Your task to perform on an android device: toggle location history Image 0: 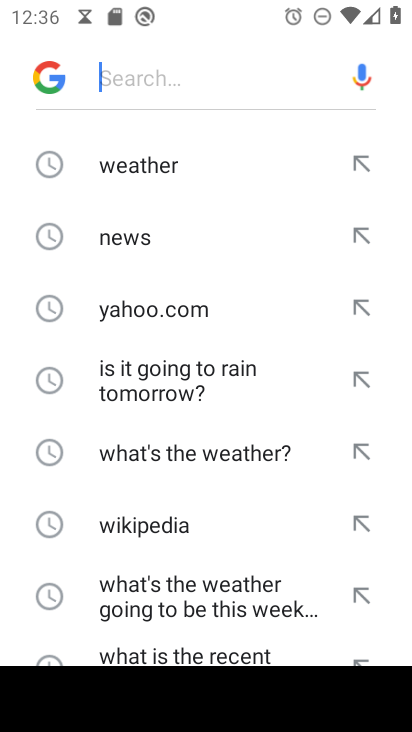
Step 0: press home button
Your task to perform on an android device: toggle location history Image 1: 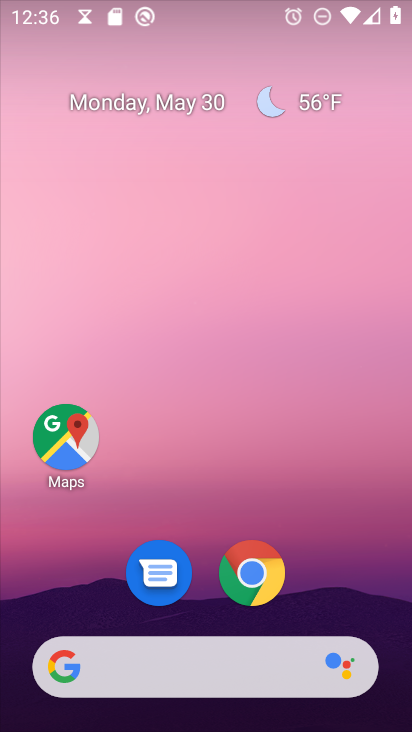
Step 1: drag from (219, 485) to (211, 144)
Your task to perform on an android device: toggle location history Image 2: 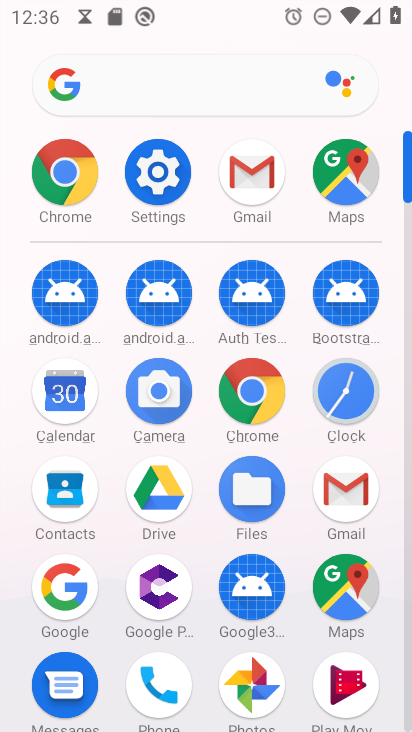
Step 2: click (182, 159)
Your task to perform on an android device: toggle location history Image 3: 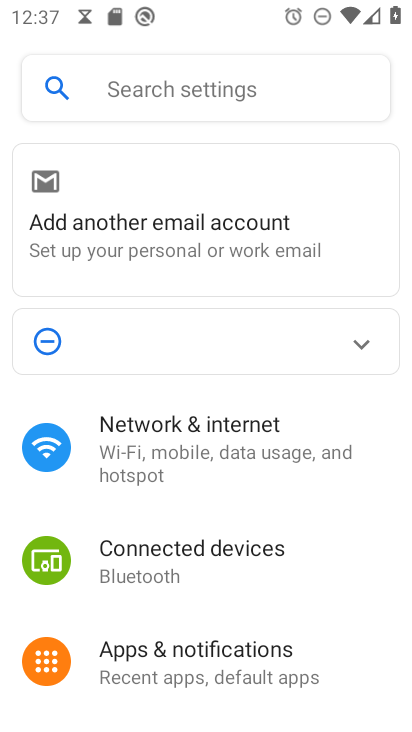
Step 3: drag from (229, 716) to (295, 182)
Your task to perform on an android device: toggle location history Image 4: 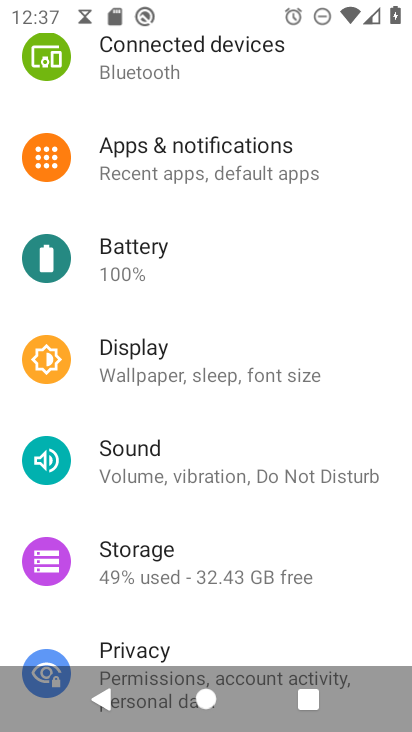
Step 4: drag from (241, 626) to (306, 113)
Your task to perform on an android device: toggle location history Image 5: 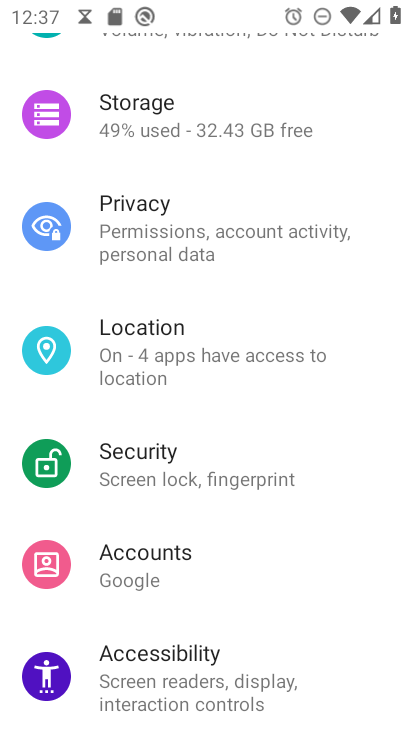
Step 5: click (248, 358)
Your task to perform on an android device: toggle location history Image 6: 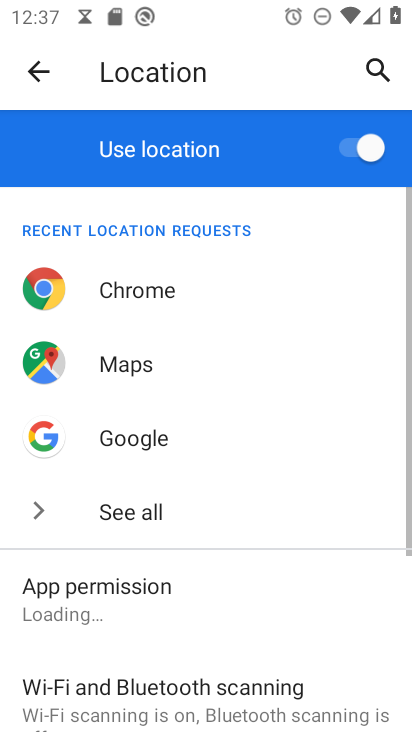
Step 6: drag from (191, 640) to (302, 84)
Your task to perform on an android device: toggle location history Image 7: 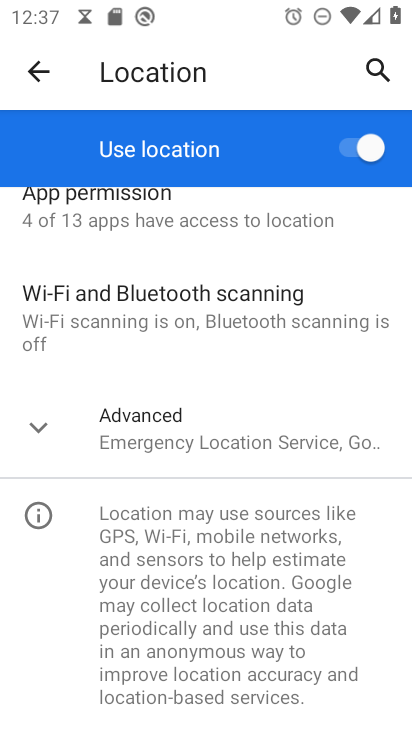
Step 7: click (288, 441)
Your task to perform on an android device: toggle location history Image 8: 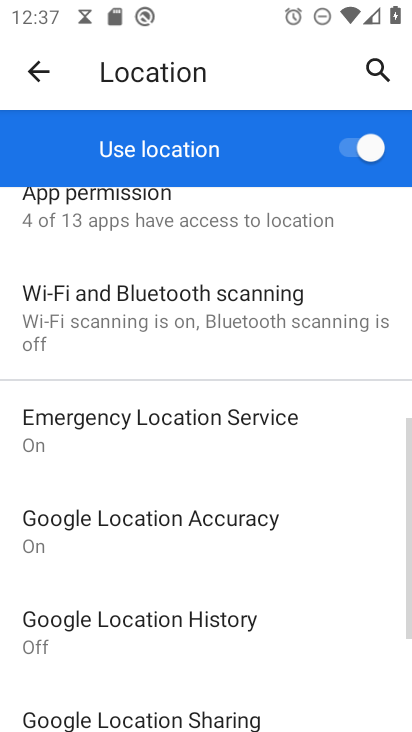
Step 8: click (226, 642)
Your task to perform on an android device: toggle location history Image 9: 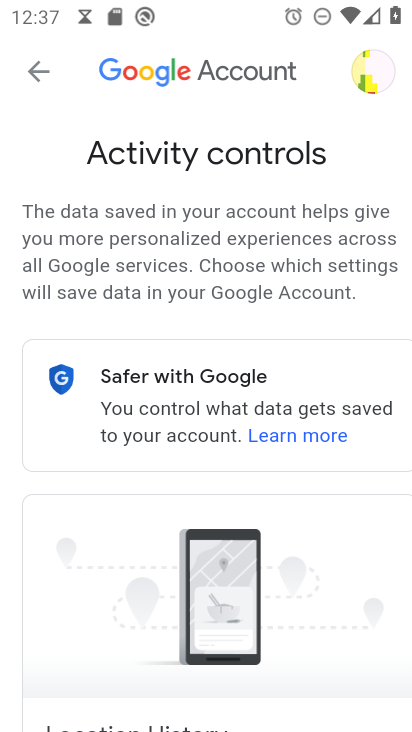
Step 9: drag from (326, 483) to (305, 122)
Your task to perform on an android device: toggle location history Image 10: 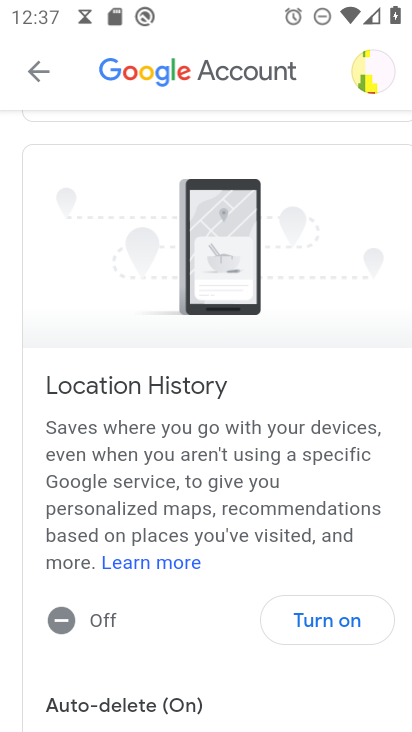
Step 10: click (332, 620)
Your task to perform on an android device: toggle location history Image 11: 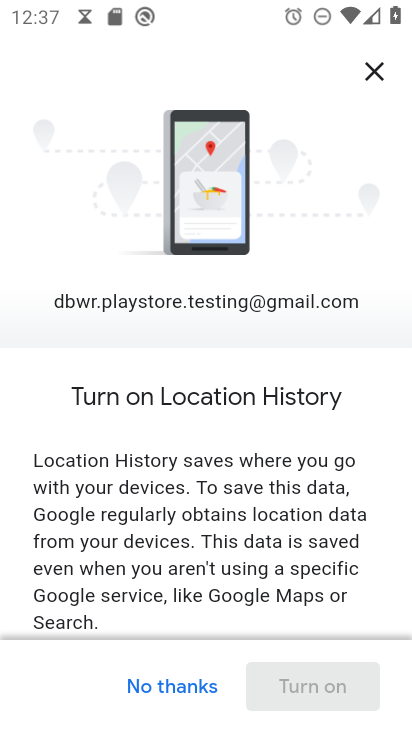
Step 11: drag from (252, 574) to (226, 92)
Your task to perform on an android device: toggle location history Image 12: 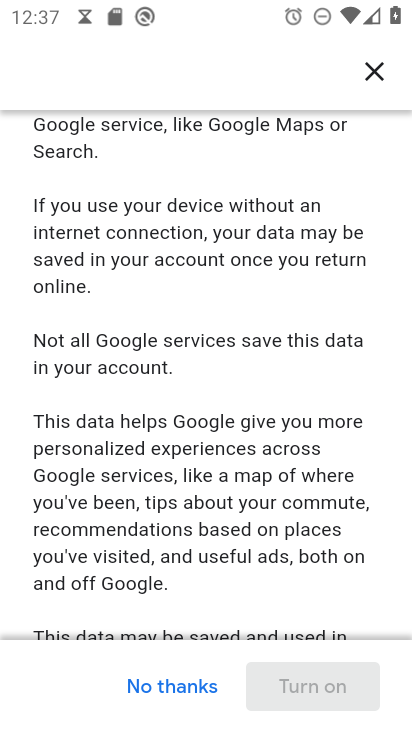
Step 12: drag from (262, 561) to (257, 157)
Your task to perform on an android device: toggle location history Image 13: 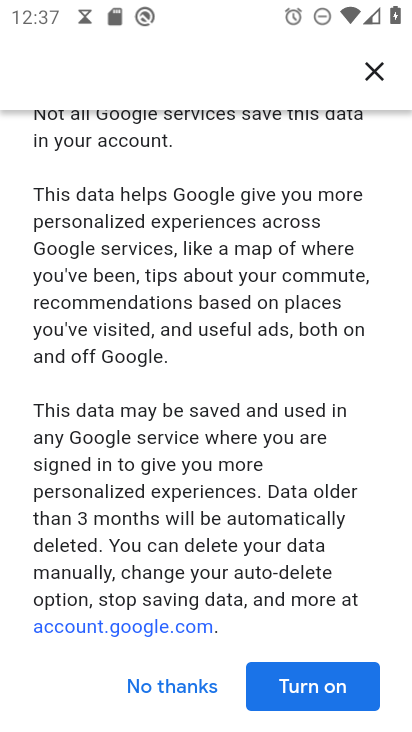
Step 13: click (281, 683)
Your task to perform on an android device: toggle location history Image 14: 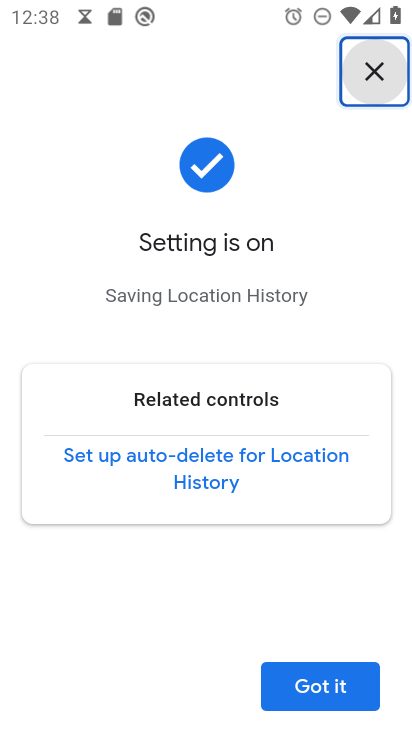
Step 14: task complete